Your task to perform on an android device: Is it going to rain tomorrow? Image 0: 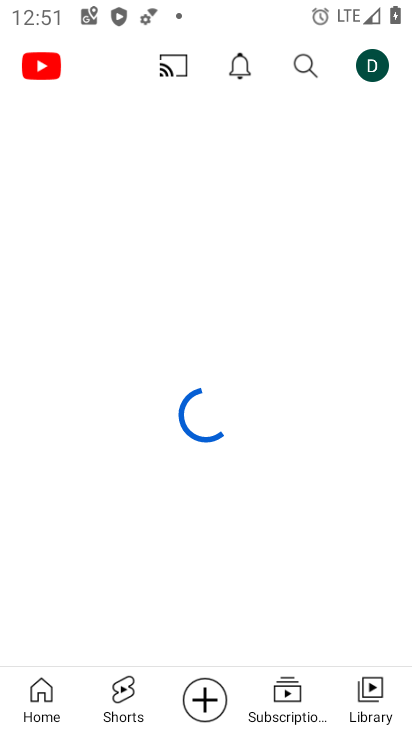
Step 0: press home button
Your task to perform on an android device: Is it going to rain tomorrow? Image 1: 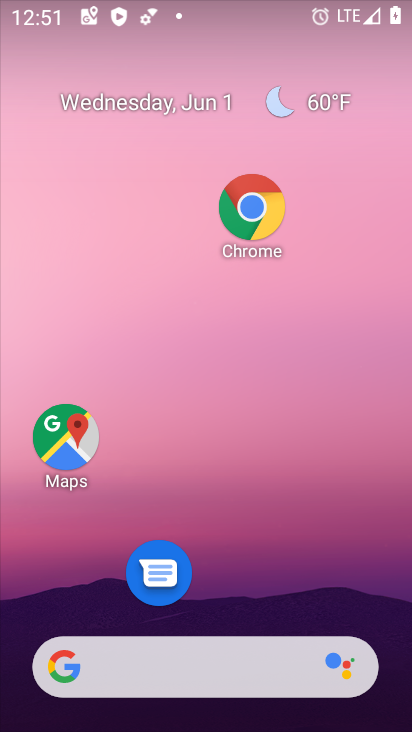
Step 1: drag from (199, 601) to (202, 122)
Your task to perform on an android device: Is it going to rain tomorrow? Image 2: 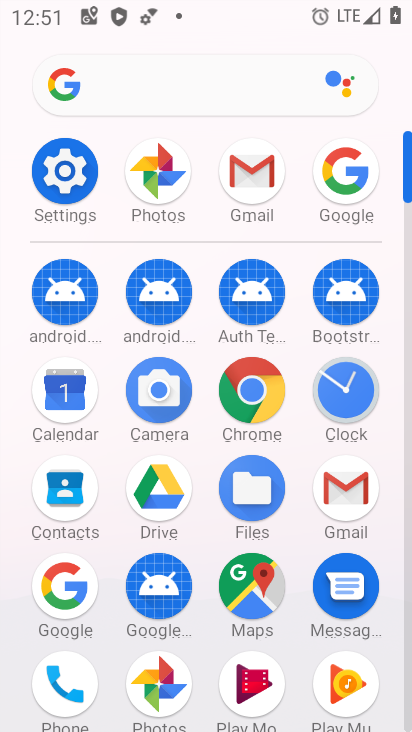
Step 2: click (64, 600)
Your task to perform on an android device: Is it going to rain tomorrow? Image 3: 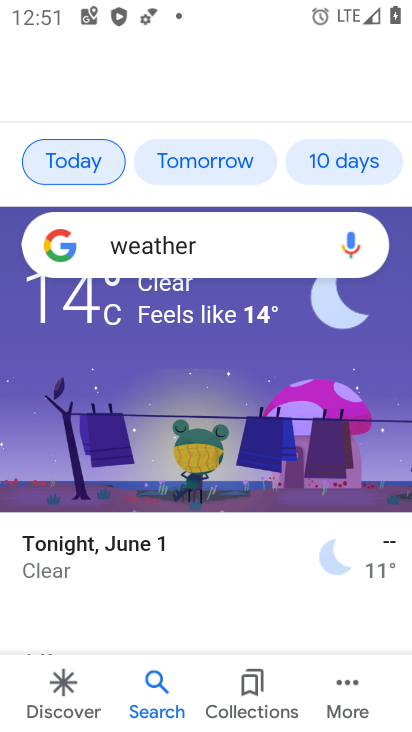
Step 3: click (244, 233)
Your task to perform on an android device: Is it going to rain tomorrow? Image 4: 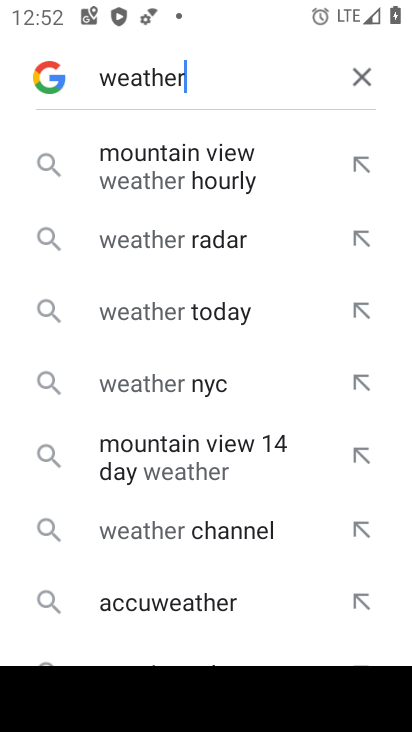
Step 4: click (354, 77)
Your task to perform on an android device: Is it going to rain tomorrow? Image 5: 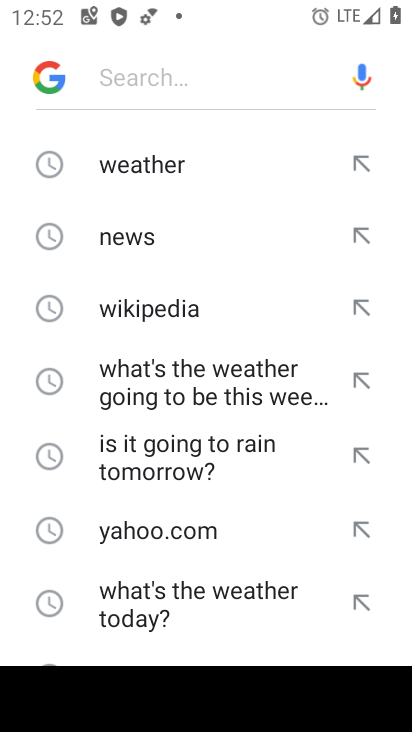
Step 5: click (208, 77)
Your task to perform on an android device: Is it going to rain tomorrow? Image 6: 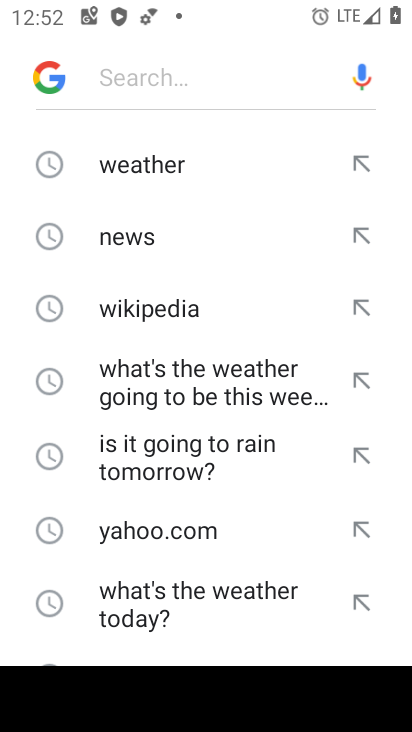
Step 6: click (168, 174)
Your task to perform on an android device: Is it going to rain tomorrow? Image 7: 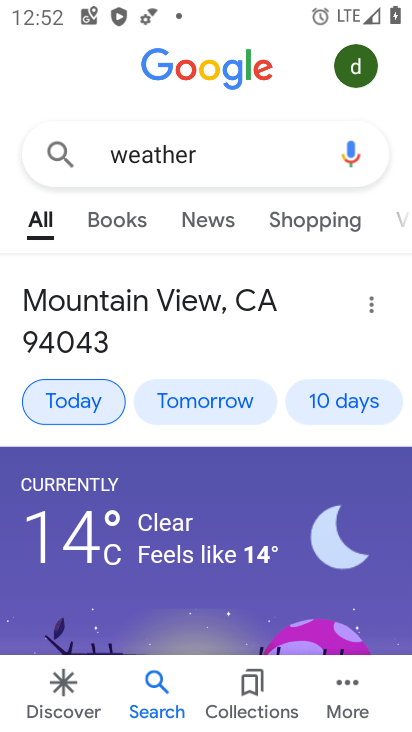
Step 7: click (183, 409)
Your task to perform on an android device: Is it going to rain tomorrow? Image 8: 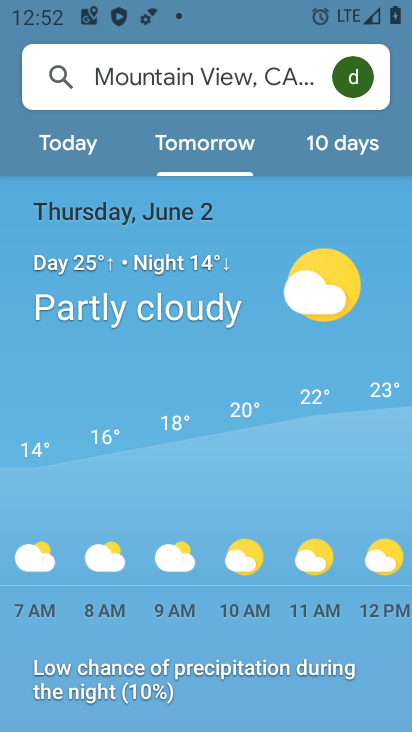
Step 8: task complete